Your task to perform on an android device: show emergency info Image 0: 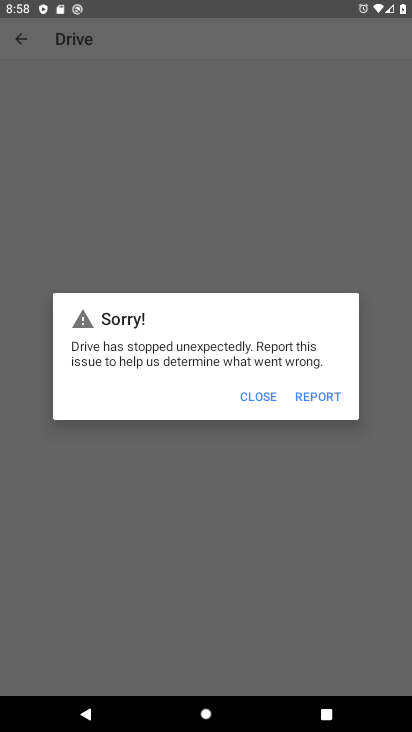
Step 0: press home button
Your task to perform on an android device: show emergency info Image 1: 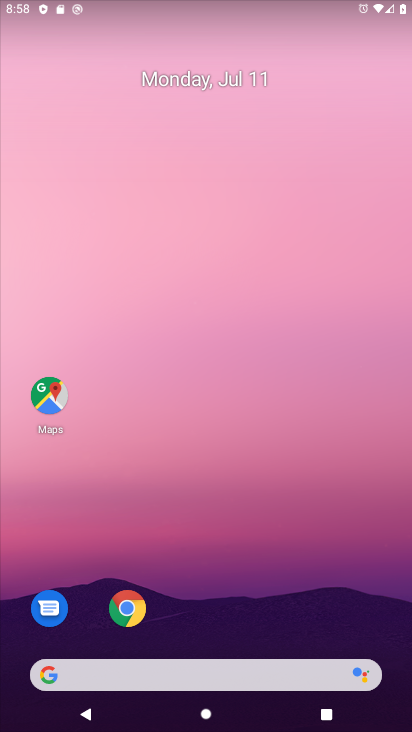
Step 1: drag from (267, 593) to (254, 110)
Your task to perform on an android device: show emergency info Image 2: 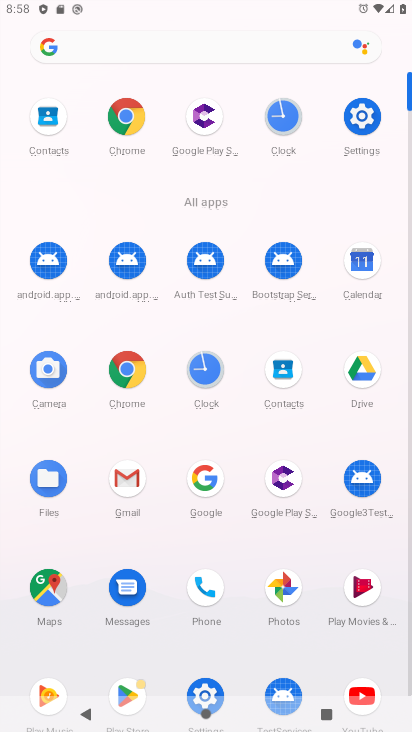
Step 2: click (193, 687)
Your task to perform on an android device: show emergency info Image 3: 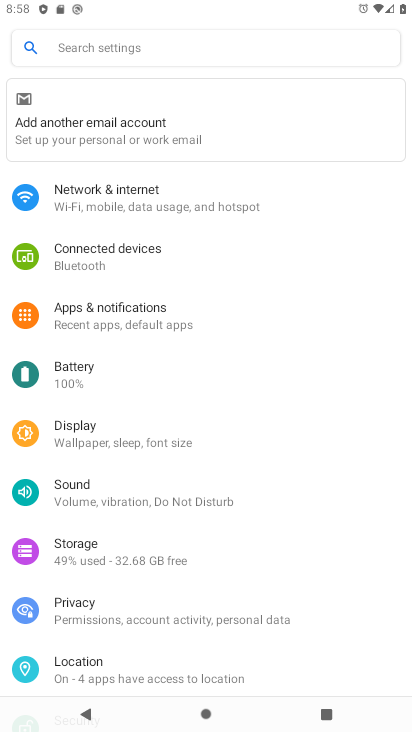
Step 3: drag from (219, 646) to (155, 219)
Your task to perform on an android device: show emergency info Image 4: 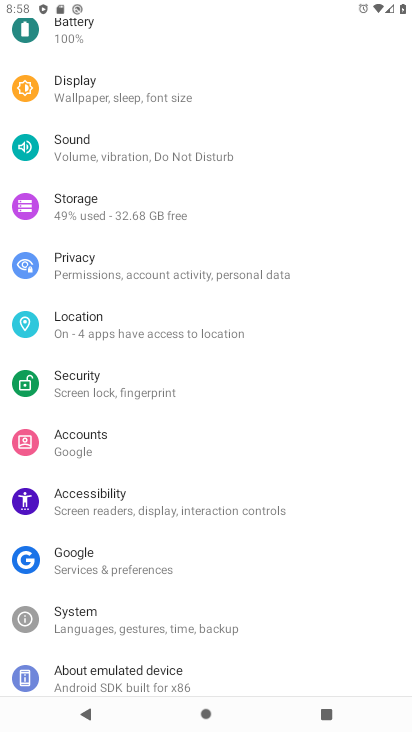
Step 4: drag from (102, 487) to (102, 278)
Your task to perform on an android device: show emergency info Image 5: 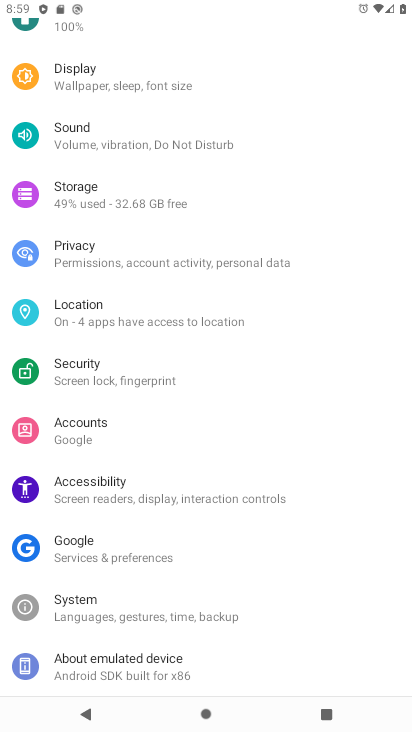
Step 5: click (96, 659)
Your task to perform on an android device: show emergency info Image 6: 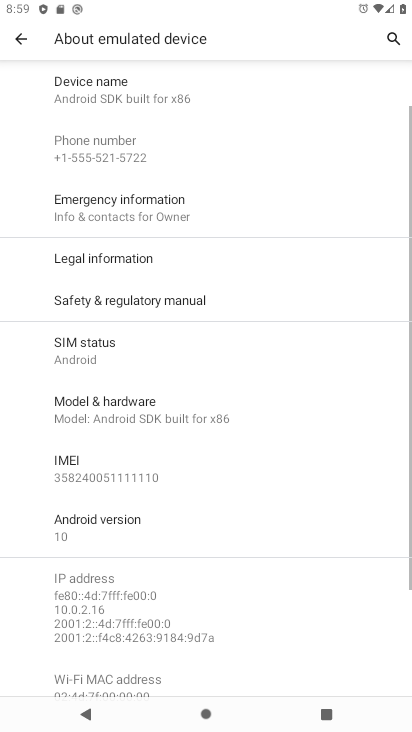
Step 6: click (103, 213)
Your task to perform on an android device: show emergency info Image 7: 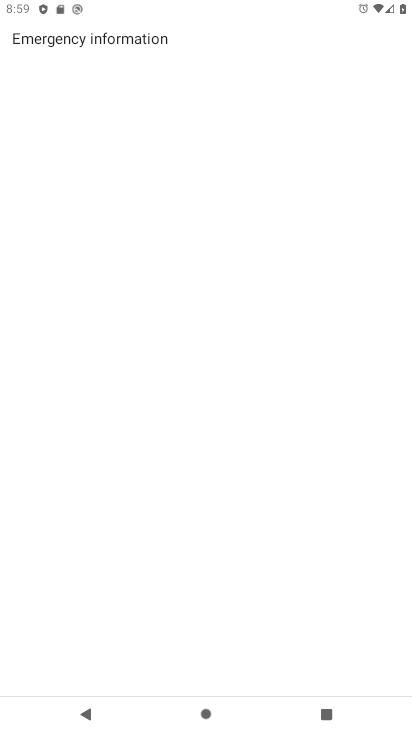
Step 7: task complete